Your task to perform on an android device: What's the weather going to be this weekend? Image 0: 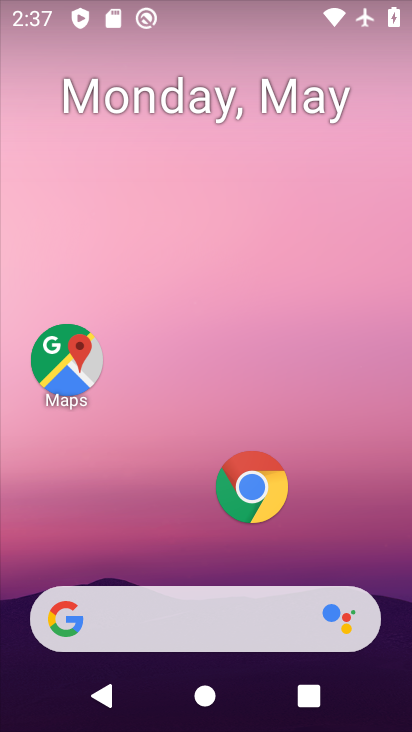
Step 0: click (210, 628)
Your task to perform on an android device: What's the weather going to be this weekend? Image 1: 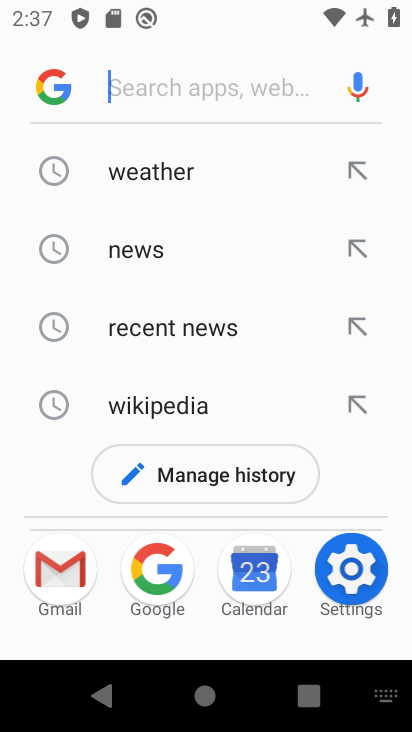
Step 1: type "what's the weather going to be this weekend"
Your task to perform on an android device: What's the weather going to be this weekend? Image 2: 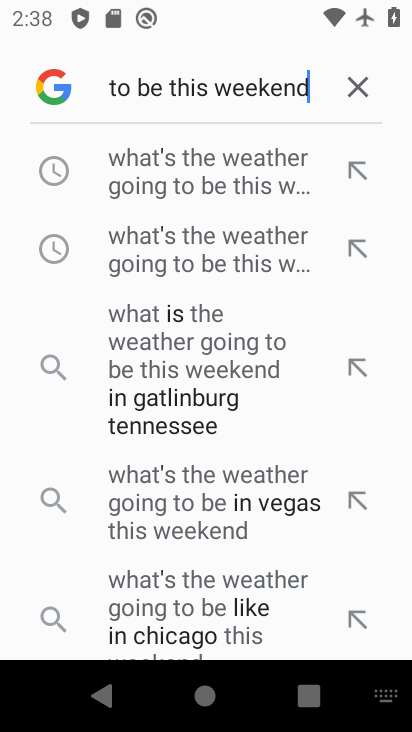
Step 2: click (158, 151)
Your task to perform on an android device: What's the weather going to be this weekend? Image 3: 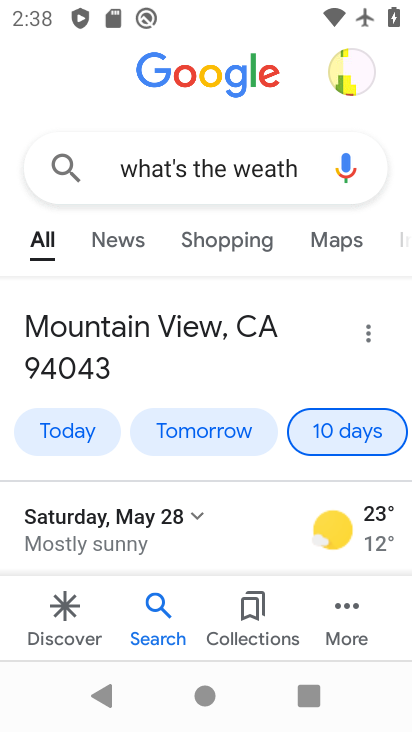
Step 3: task complete